Your task to perform on an android device: Show me recent news Image 0: 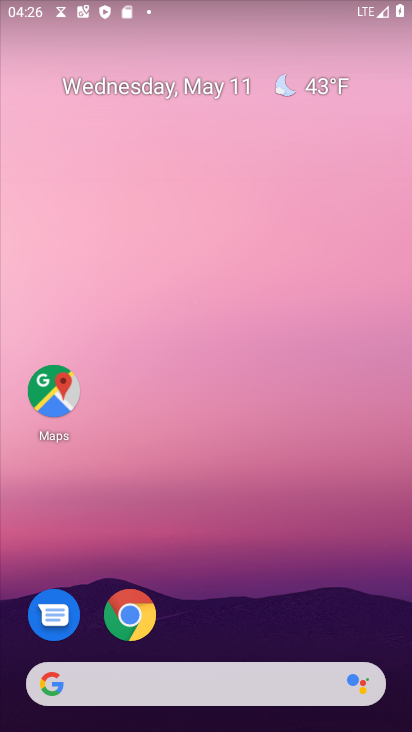
Step 0: drag from (287, 575) to (252, 9)
Your task to perform on an android device: Show me recent news Image 1: 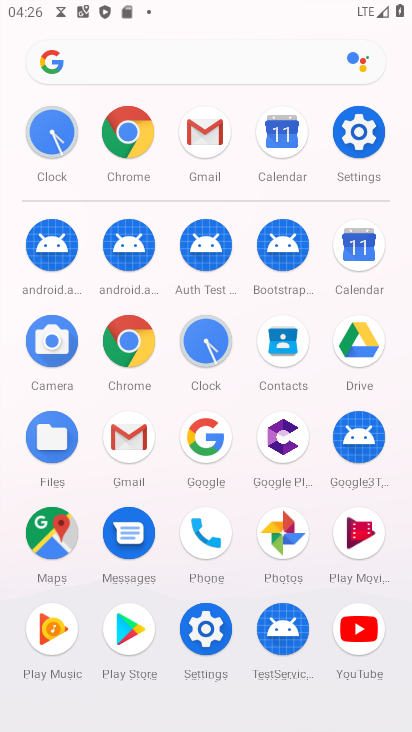
Step 1: drag from (10, 538) to (0, 140)
Your task to perform on an android device: Show me recent news Image 2: 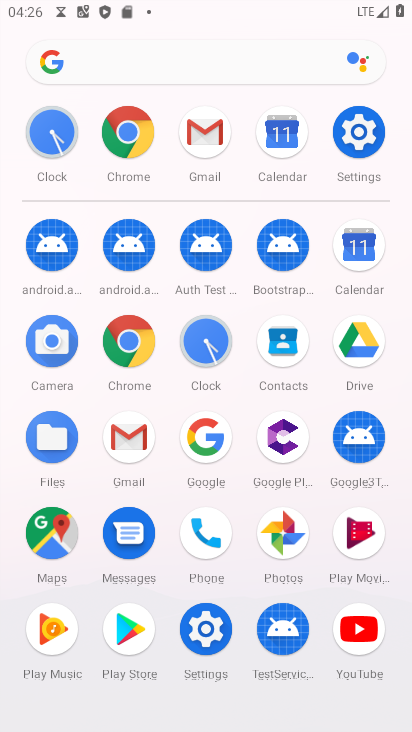
Step 2: click (128, 127)
Your task to perform on an android device: Show me recent news Image 3: 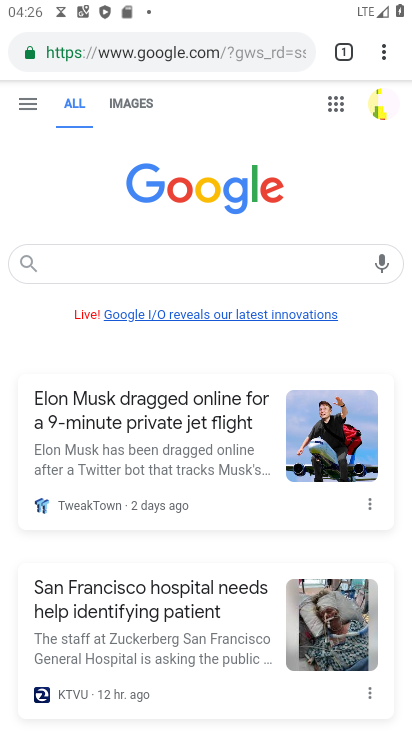
Step 3: click (171, 53)
Your task to perform on an android device: Show me recent news Image 4: 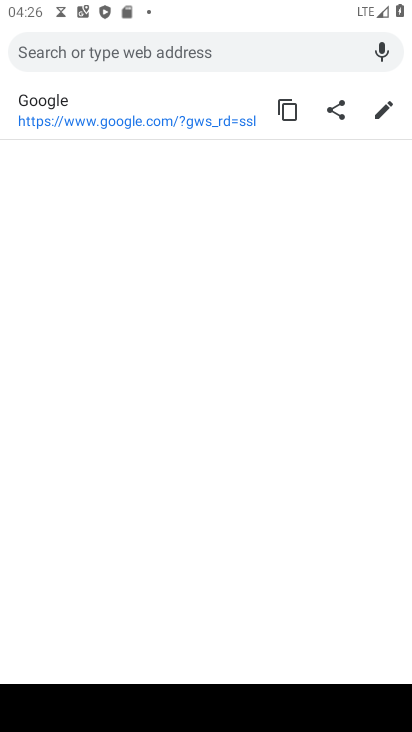
Step 4: type "Show me recent news"
Your task to perform on an android device: Show me recent news Image 5: 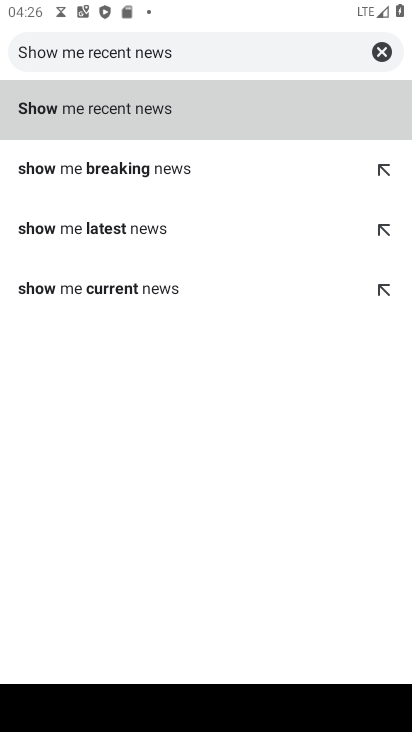
Step 5: click (193, 116)
Your task to perform on an android device: Show me recent news Image 6: 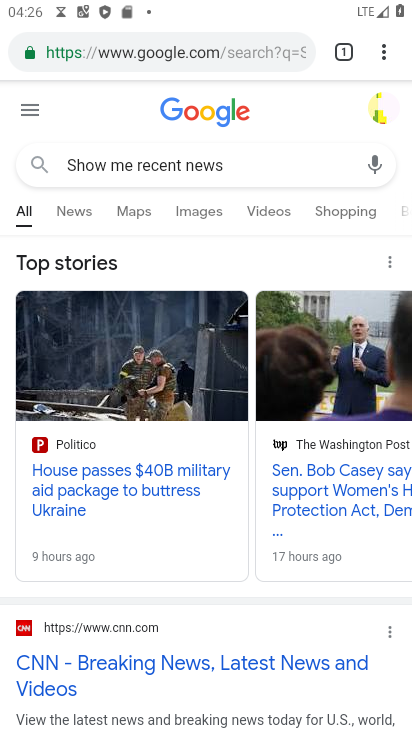
Step 6: task complete